Your task to perform on an android device: Go to accessibility settings Image 0: 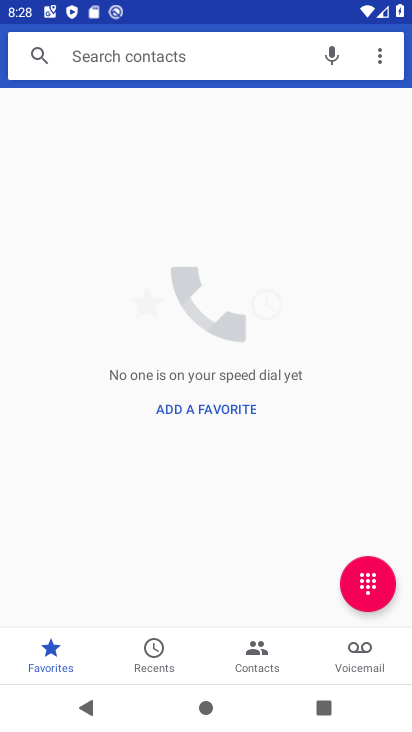
Step 0: press home button
Your task to perform on an android device: Go to accessibility settings Image 1: 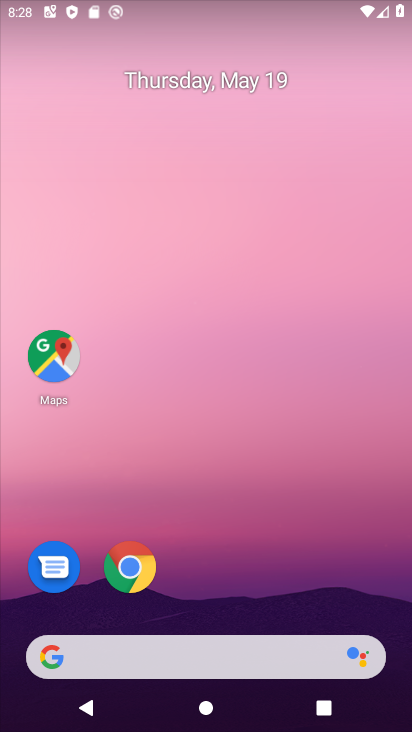
Step 1: drag from (213, 586) to (281, 0)
Your task to perform on an android device: Go to accessibility settings Image 2: 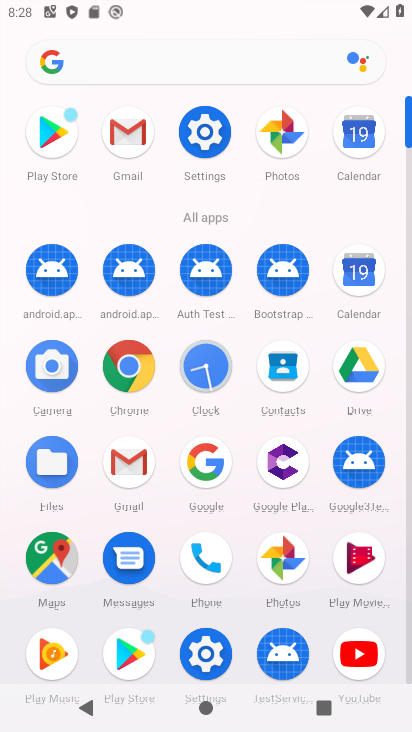
Step 2: click (214, 185)
Your task to perform on an android device: Go to accessibility settings Image 3: 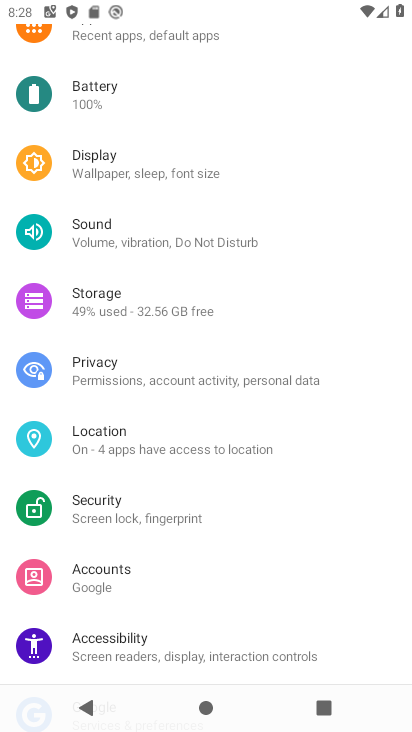
Step 3: click (116, 645)
Your task to perform on an android device: Go to accessibility settings Image 4: 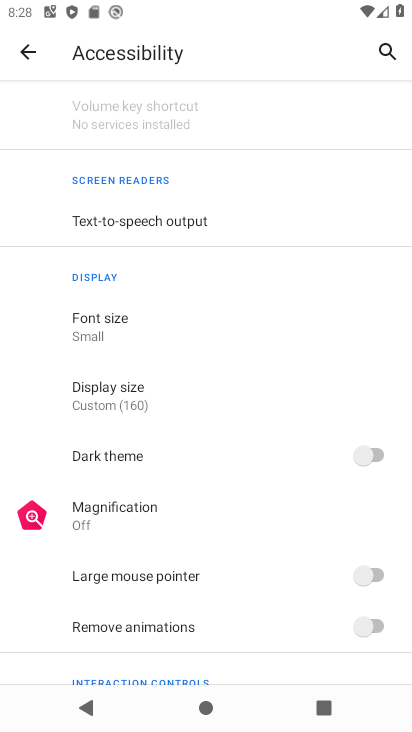
Step 4: task complete